Your task to perform on an android device: Open the map Image 0: 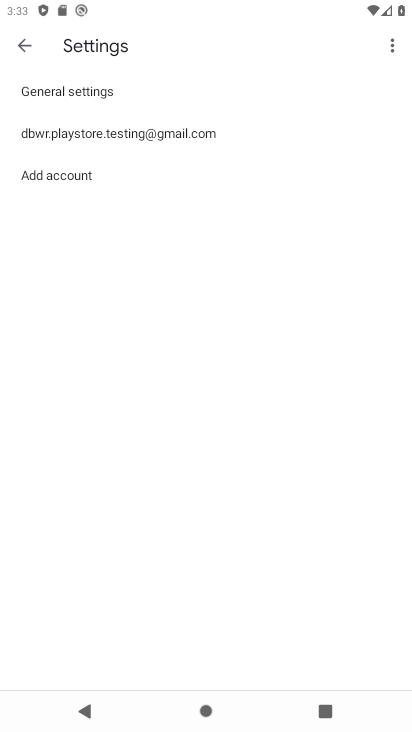
Step 0: press home button
Your task to perform on an android device: Open the map Image 1: 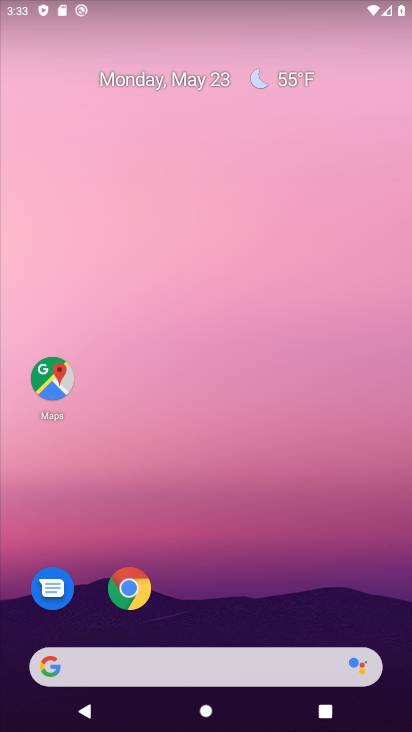
Step 1: click (54, 376)
Your task to perform on an android device: Open the map Image 2: 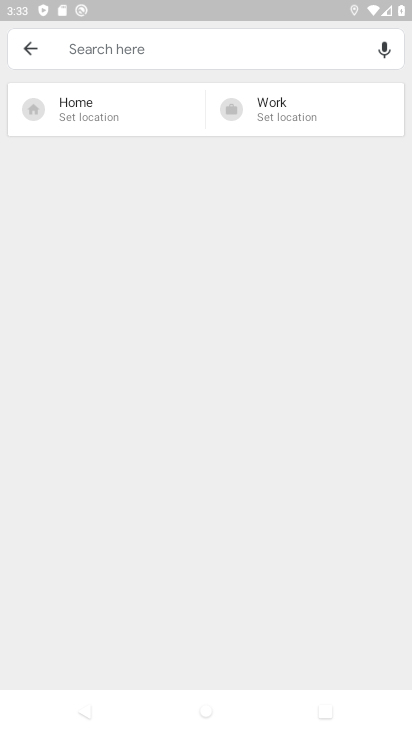
Step 2: task complete